Your task to perform on an android device: Open ESPN.com Image 0: 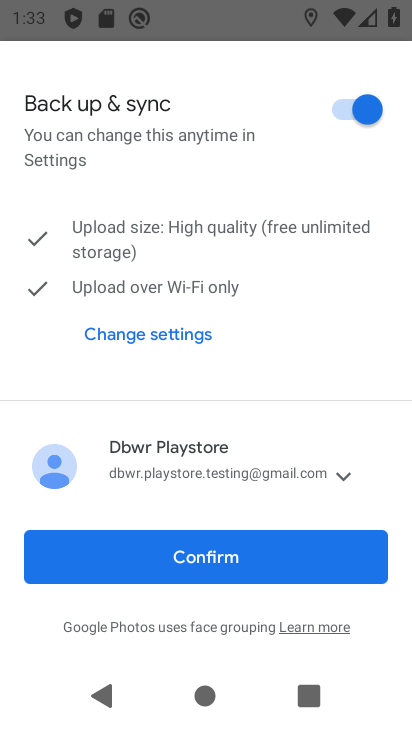
Step 0: press home button
Your task to perform on an android device: Open ESPN.com Image 1: 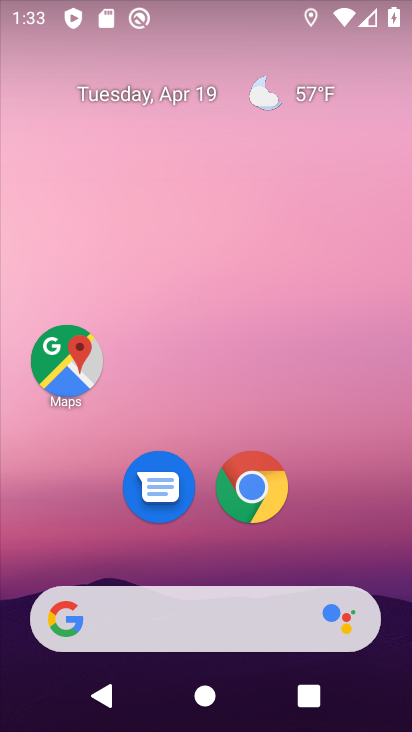
Step 1: click (238, 475)
Your task to perform on an android device: Open ESPN.com Image 2: 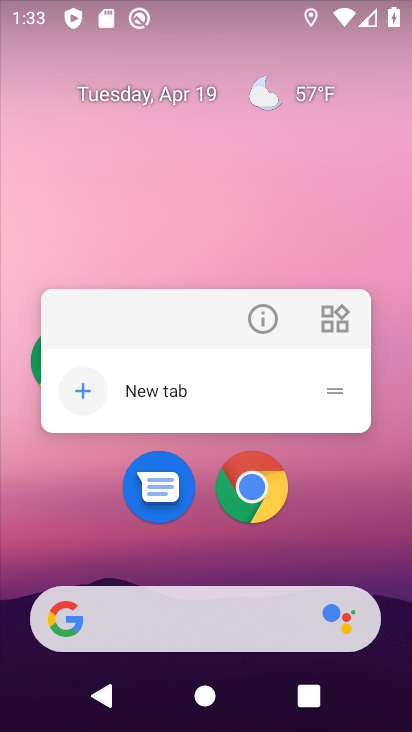
Step 2: click (262, 499)
Your task to perform on an android device: Open ESPN.com Image 3: 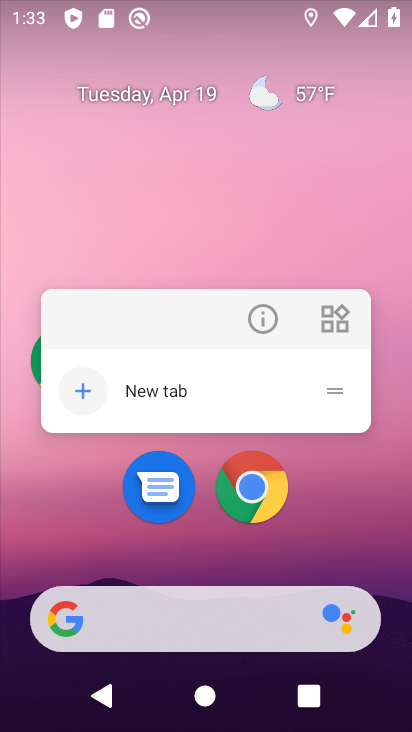
Step 3: click (277, 494)
Your task to perform on an android device: Open ESPN.com Image 4: 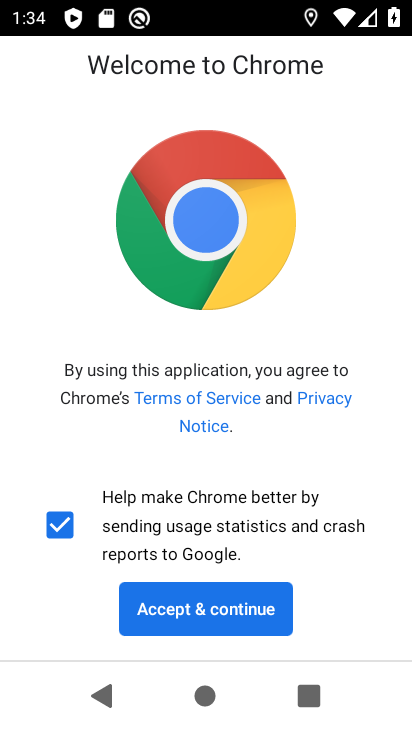
Step 4: click (261, 602)
Your task to perform on an android device: Open ESPN.com Image 5: 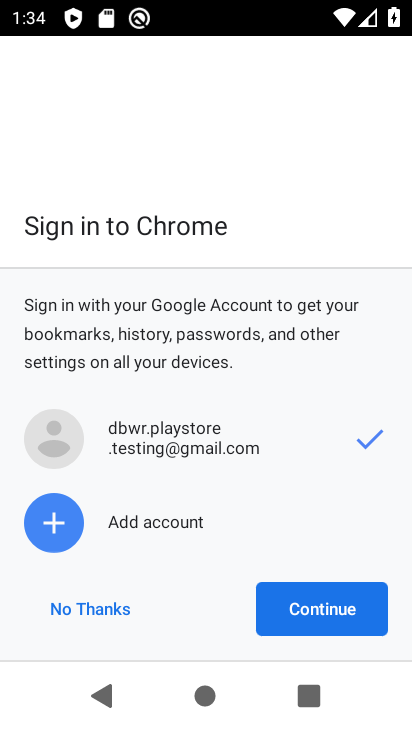
Step 5: click (301, 594)
Your task to perform on an android device: Open ESPN.com Image 6: 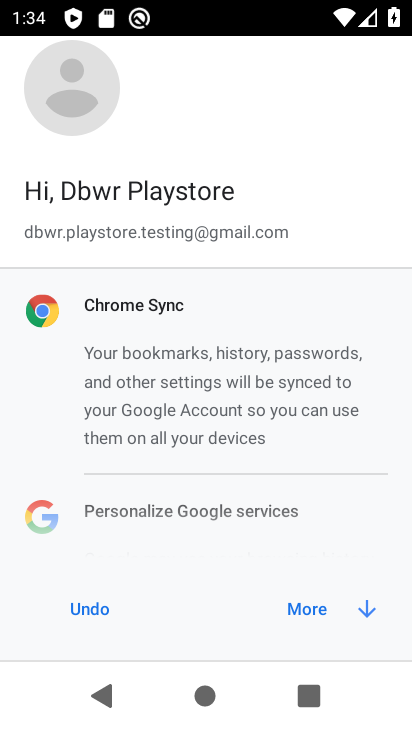
Step 6: click (295, 602)
Your task to perform on an android device: Open ESPN.com Image 7: 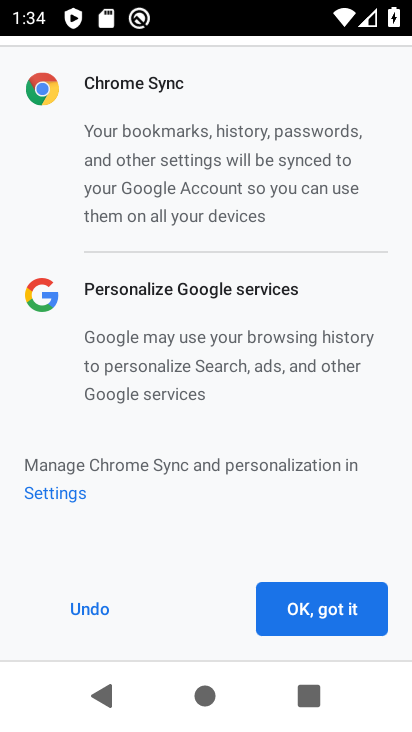
Step 7: click (291, 602)
Your task to perform on an android device: Open ESPN.com Image 8: 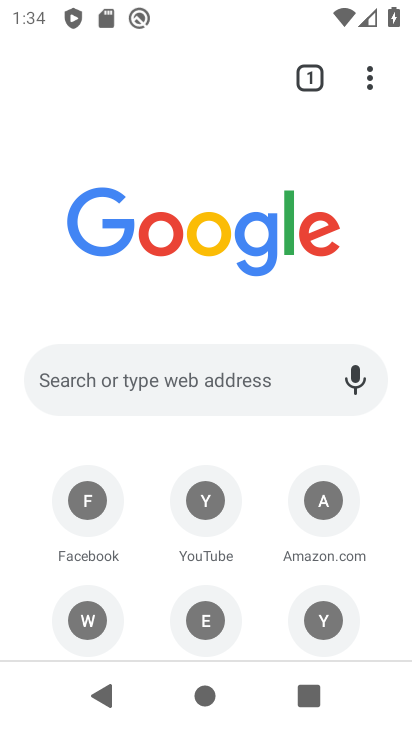
Step 8: click (273, 371)
Your task to perform on an android device: Open ESPN.com Image 9: 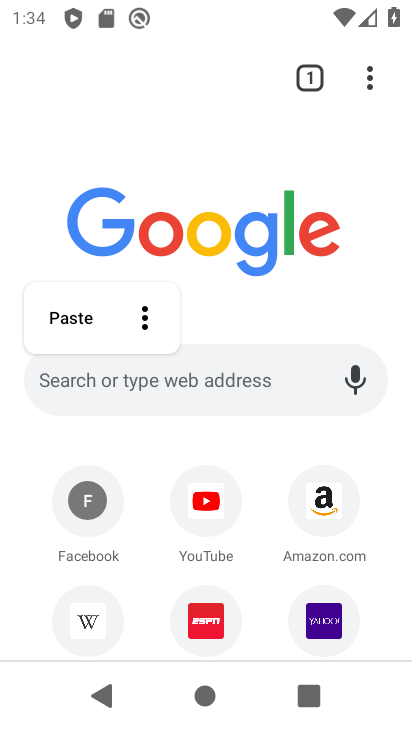
Step 9: type "espn.com"
Your task to perform on an android device: Open ESPN.com Image 10: 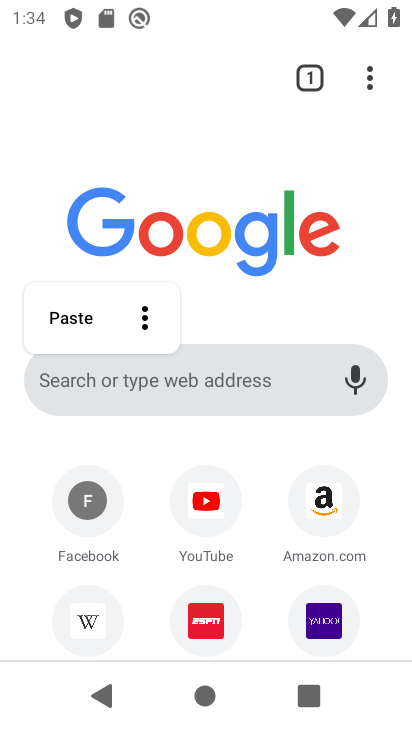
Step 10: click (236, 378)
Your task to perform on an android device: Open ESPN.com Image 11: 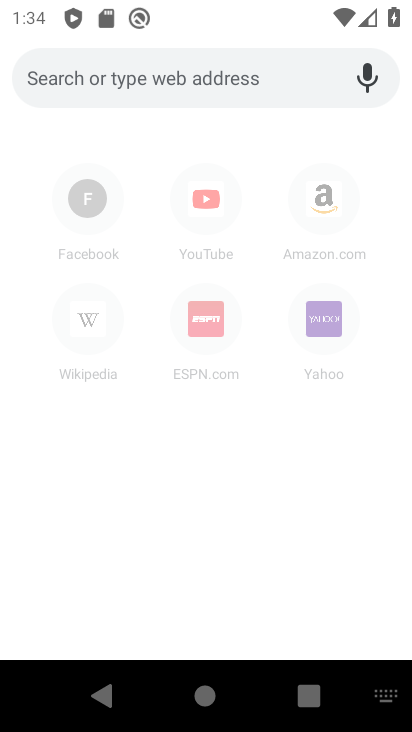
Step 11: type "espn.com"
Your task to perform on an android device: Open ESPN.com Image 12: 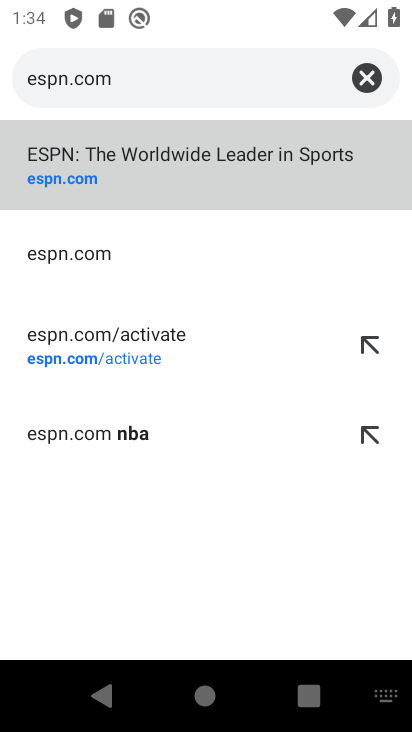
Step 12: click (72, 177)
Your task to perform on an android device: Open ESPN.com Image 13: 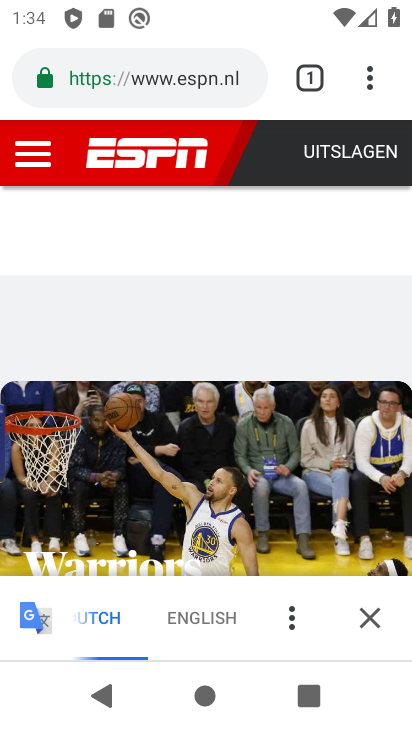
Step 13: task complete